Your task to perform on an android device: remove spam from my inbox in the gmail app Image 0: 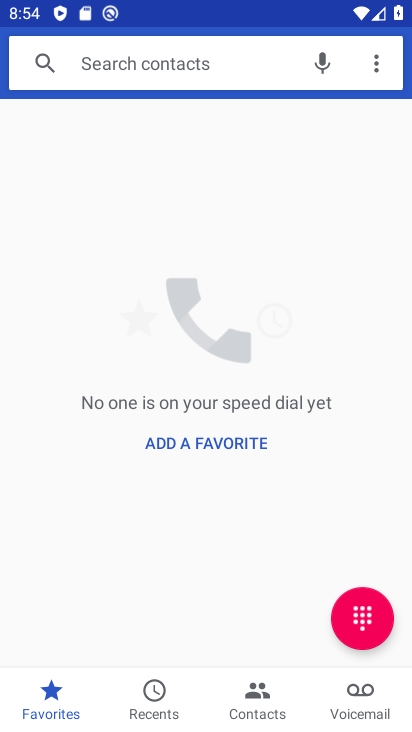
Step 0: press home button
Your task to perform on an android device: remove spam from my inbox in the gmail app Image 1: 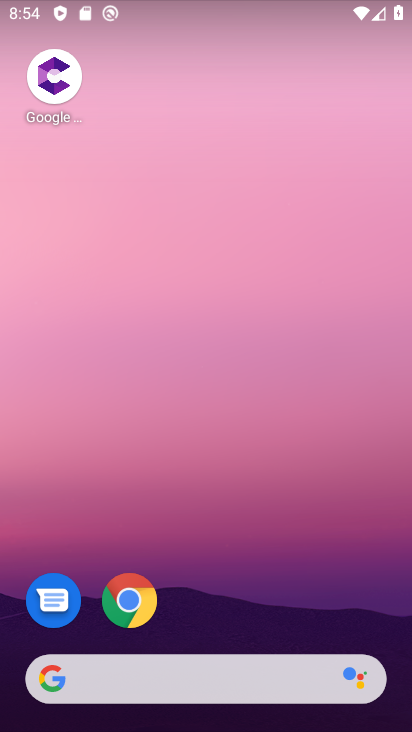
Step 1: drag from (244, 616) to (211, 312)
Your task to perform on an android device: remove spam from my inbox in the gmail app Image 2: 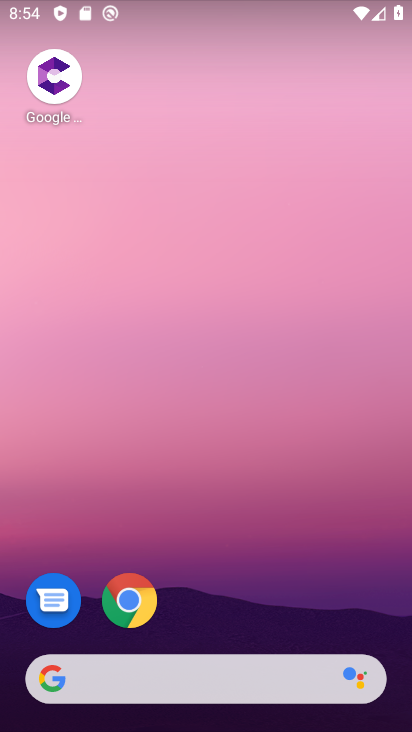
Step 2: drag from (215, 632) to (144, 168)
Your task to perform on an android device: remove spam from my inbox in the gmail app Image 3: 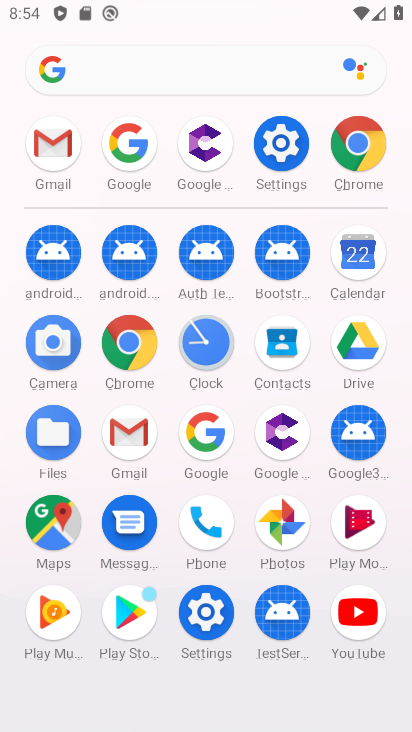
Step 3: click (71, 173)
Your task to perform on an android device: remove spam from my inbox in the gmail app Image 4: 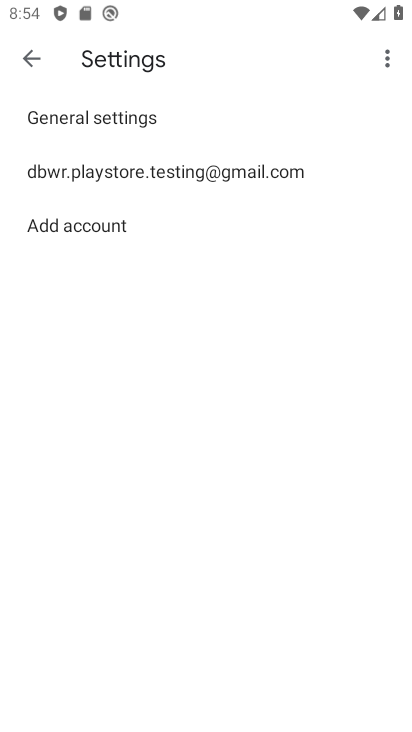
Step 4: click (45, 51)
Your task to perform on an android device: remove spam from my inbox in the gmail app Image 5: 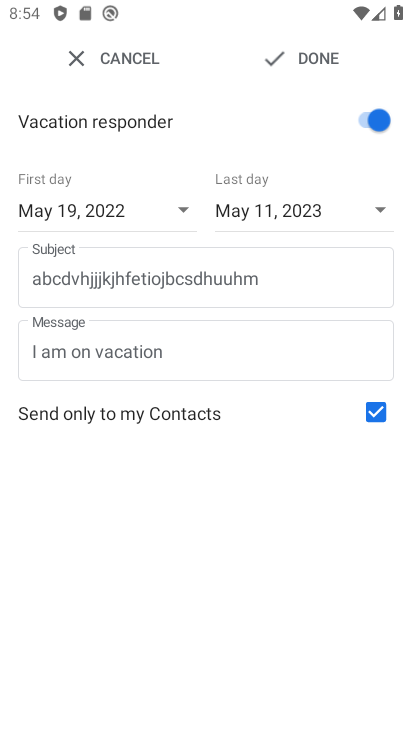
Step 5: press back button
Your task to perform on an android device: remove spam from my inbox in the gmail app Image 6: 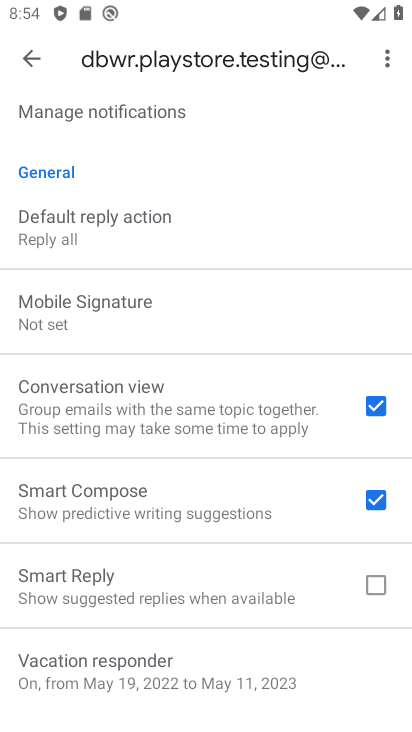
Step 6: press back button
Your task to perform on an android device: remove spam from my inbox in the gmail app Image 7: 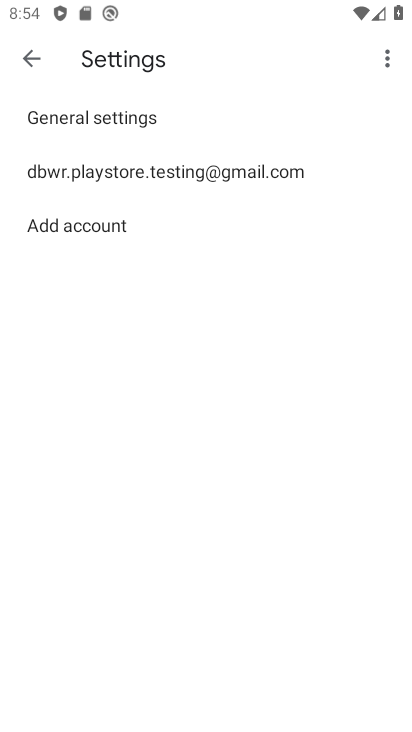
Step 7: press back button
Your task to perform on an android device: remove spam from my inbox in the gmail app Image 8: 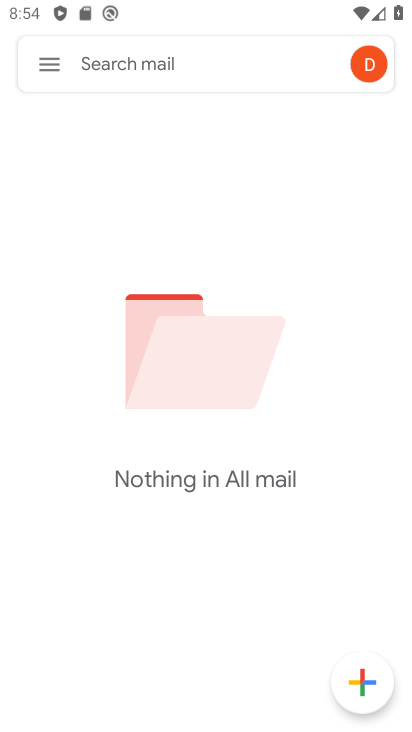
Step 8: click (50, 61)
Your task to perform on an android device: remove spam from my inbox in the gmail app Image 9: 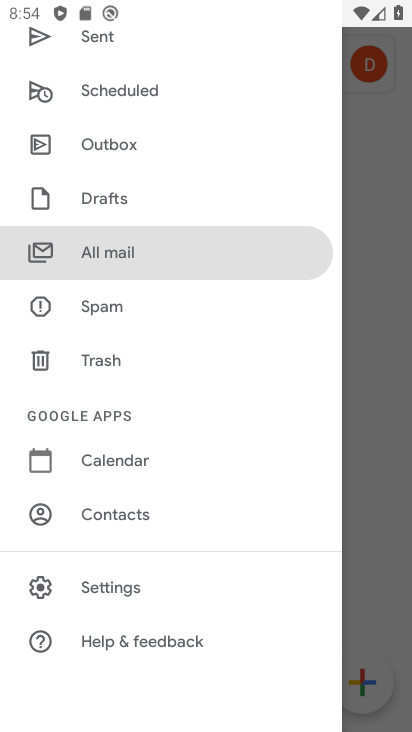
Step 9: click (124, 319)
Your task to perform on an android device: remove spam from my inbox in the gmail app Image 10: 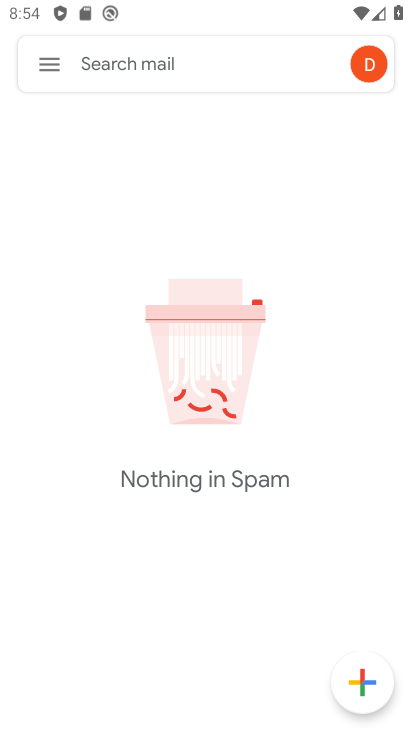
Step 10: task complete